Your task to perform on an android device: turn pop-ups on in chrome Image 0: 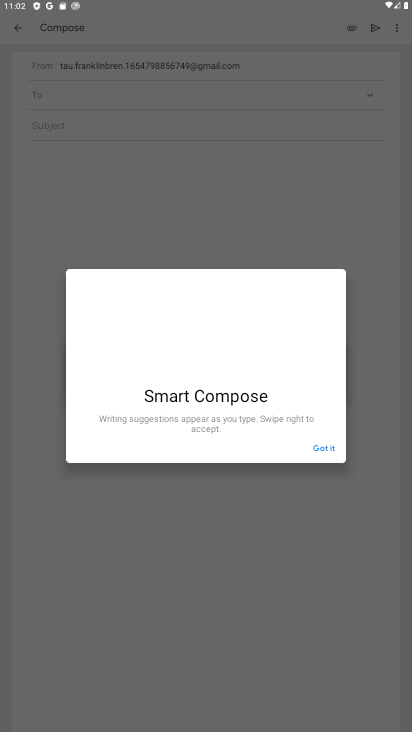
Step 0: press home button
Your task to perform on an android device: turn pop-ups on in chrome Image 1: 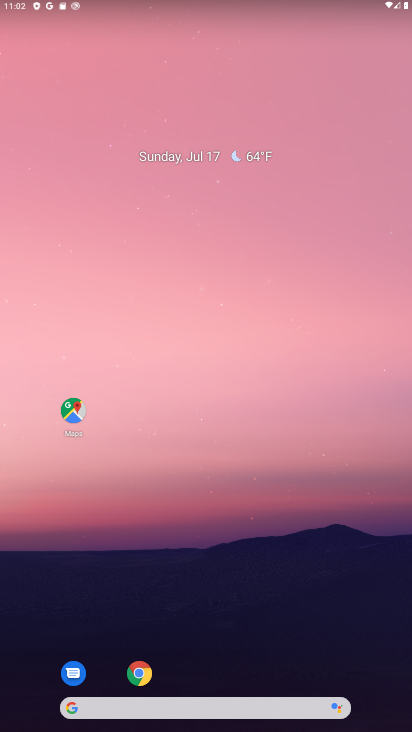
Step 1: click (138, 676)
Your task to perform on an android device: turn pop-ups on in chrome Image 2: 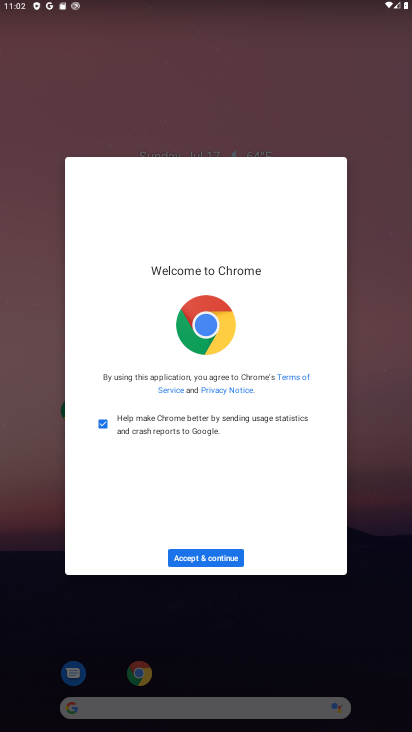
Step 2: click (223, 553)
Your task to perform on an android device: turn pop-ups on in chrome Image 3: 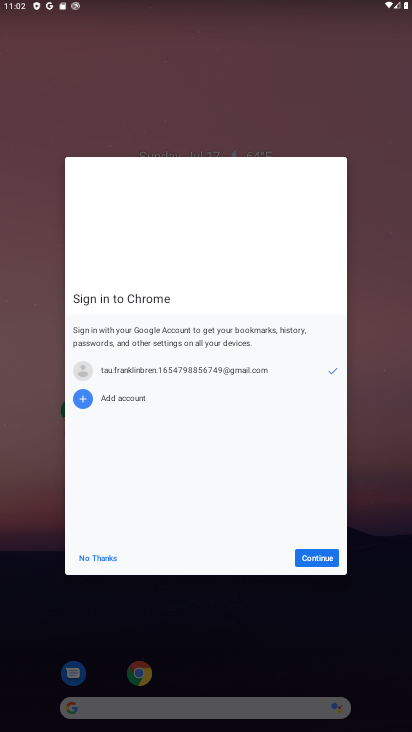
Step 3: click (317, 552)
Your task to perform on an android device: turn pop-ups on in chrome Image 4: 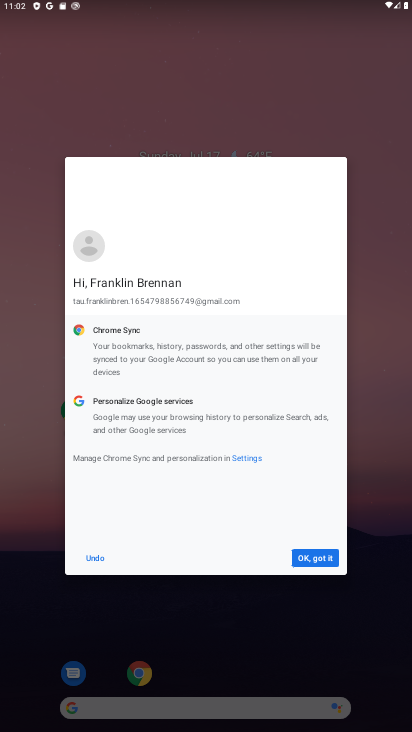
Step 4: click (317, 552)
Your task to perform on an android device: turn pop-ups on in chrome Image 5: 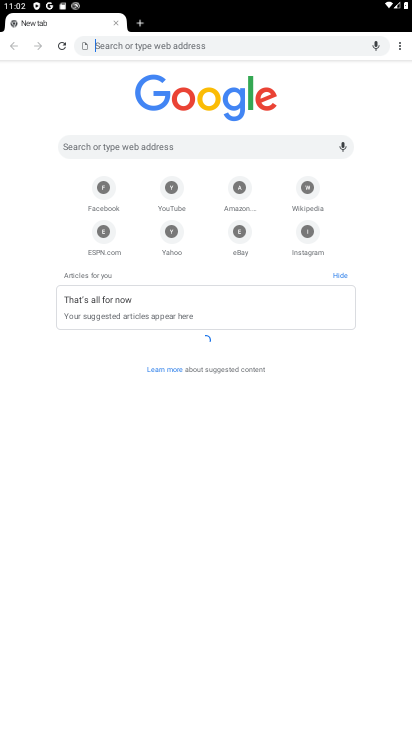
Step 5: click (397, 47)
Your task to perform on an android device: turn pop-ups on in chrome Image 6: 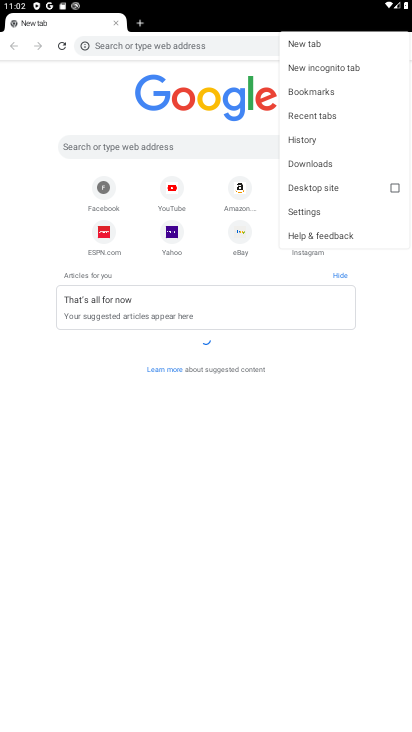
Step 6: click (315, 212)
Your task to perform on an android device: turn pop-ups on in chrome Image 7: 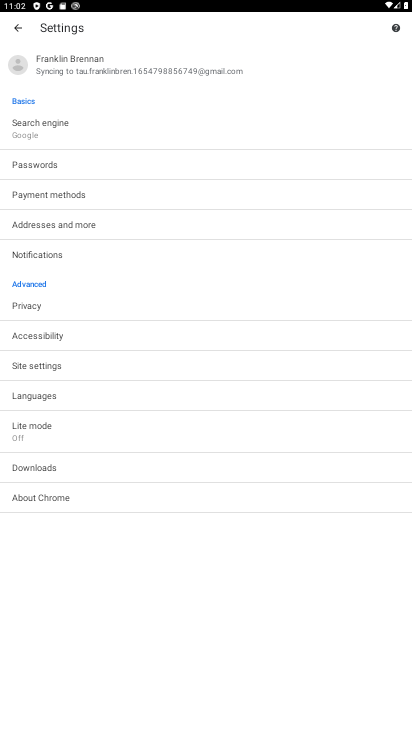
Step 7: click (51, 364)
Your task to perform on an android device: turn pop-ups on in chrome Image 8: 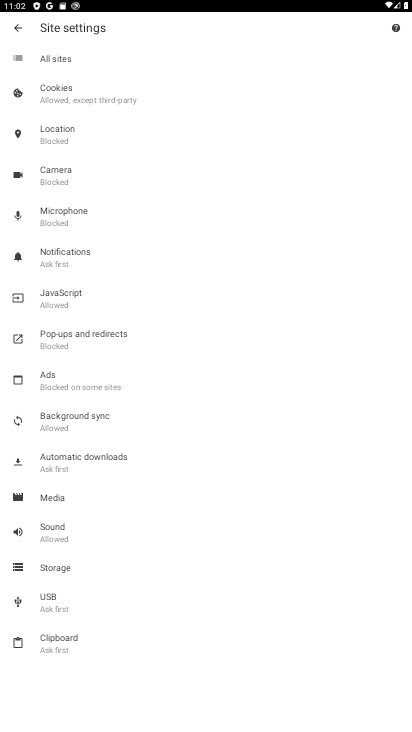
Step 8: click (96, 340)
Your task to perform on an android device: turn pop-ups on in chrome Image 9: 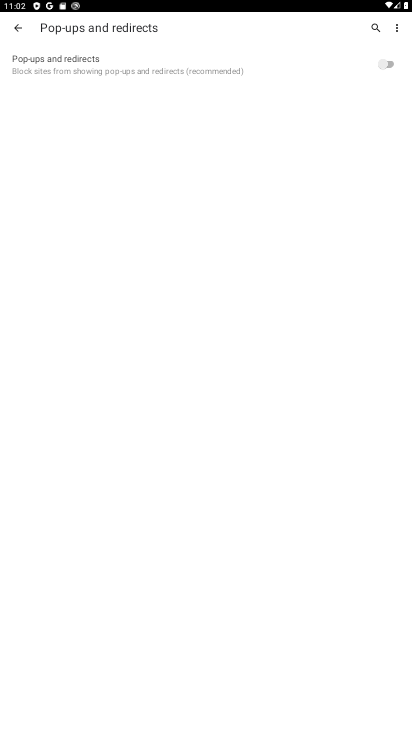
Step 9: click (398, 53)
Your task to perform on an android device: turn pop-ups on in chrome Image 10: 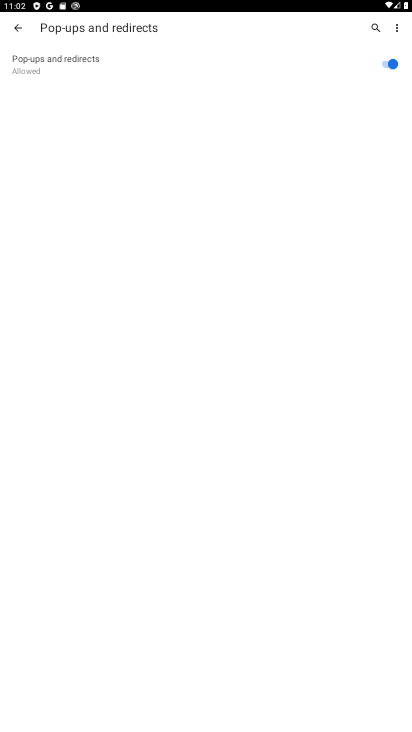
Step 10: task complete